Your task to perform on an android device: Show me popular games on the Play Store Image 0: 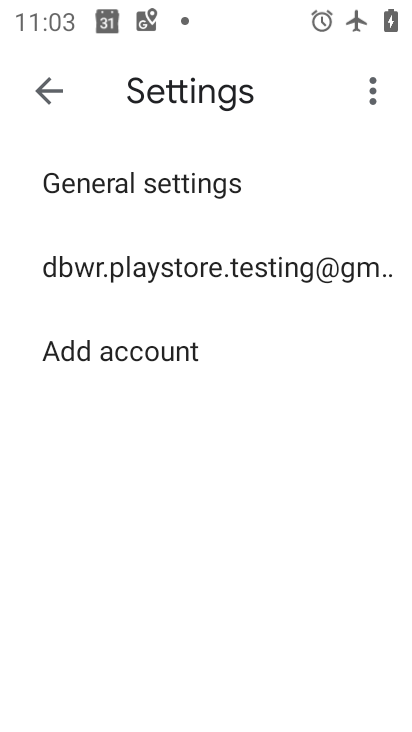
Step 0: press home button
Your task to perform on an android device: Show me popular games on the Play Store Image 1: 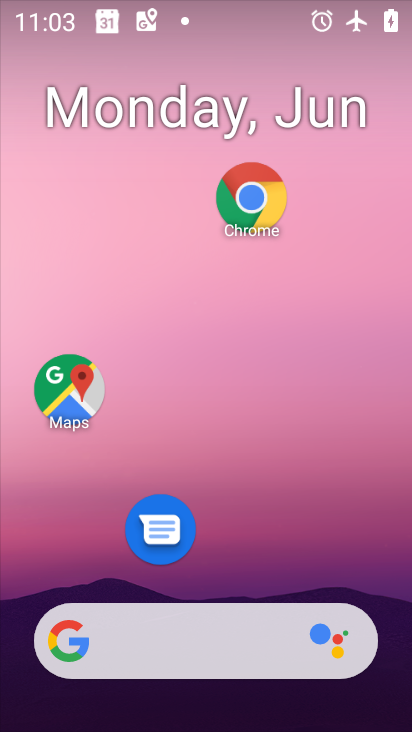
Step 1: drag from (236, 573) to (236, 180)
Your task to perform on an android device: Show me popular games on the Play Store Image 2: 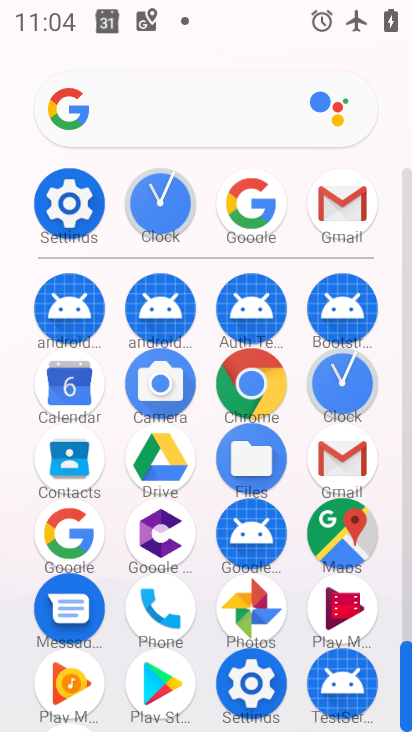
Step 2: drag from (201, 586) to (203, 304)
Your task to perform on an android device: Show me popular games on the Play Store Image 3: 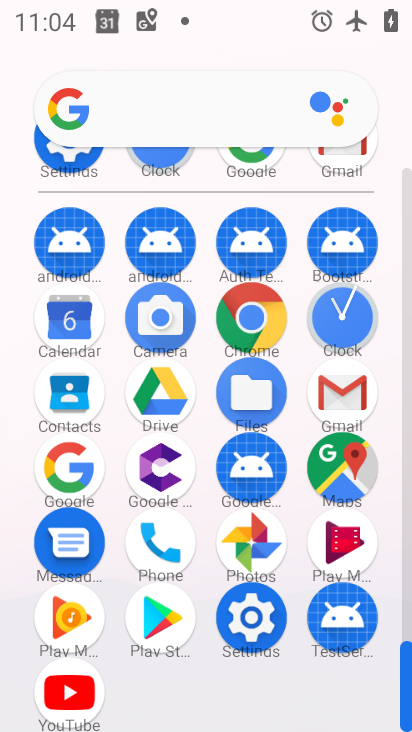
Step 3: click (166, 604)
Your task to perform on an android device: Show me popular games on the Play Store Image 4: 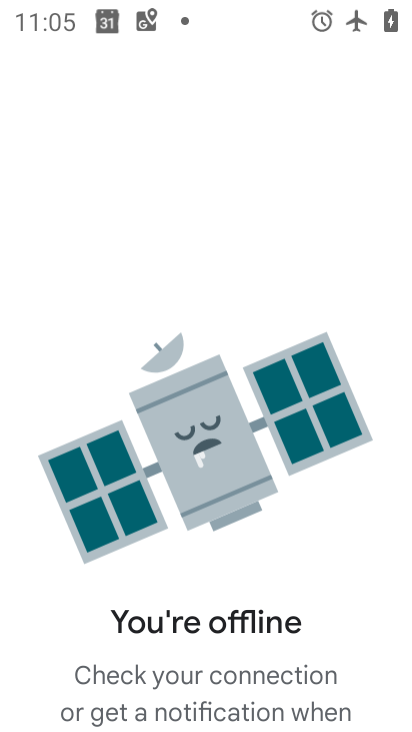
Step 4: task complete